Your task to perform on an android device: open chrome privacy settings Image 0: 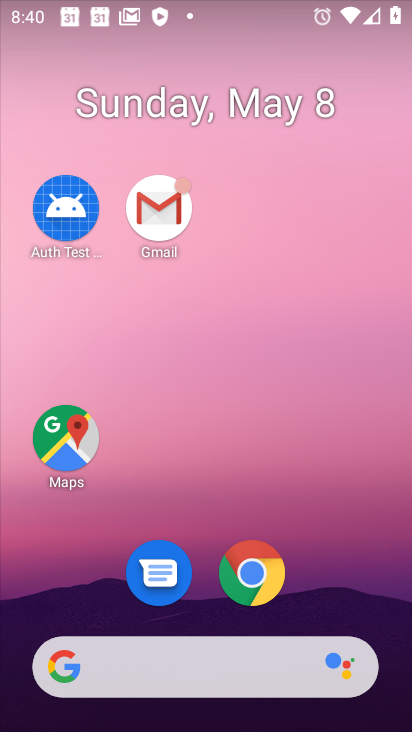
Step 0: drag from (344, 594) to (165, 146)
Your task to perform on an android device: open chrome privacy settings Image 1: 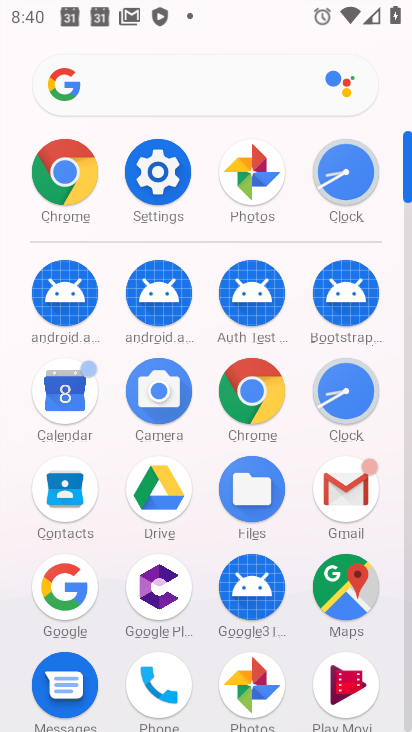
Step 1: click (247, 388)
Your task to perform on an android device: open chrome privacy settings Image 2: 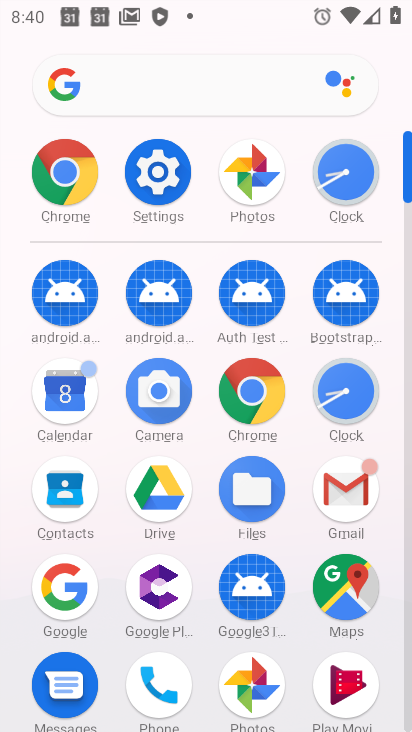
Step 2: click (249, 388)
Your task to perform on an android device: open chrome privacy settings Image 3: 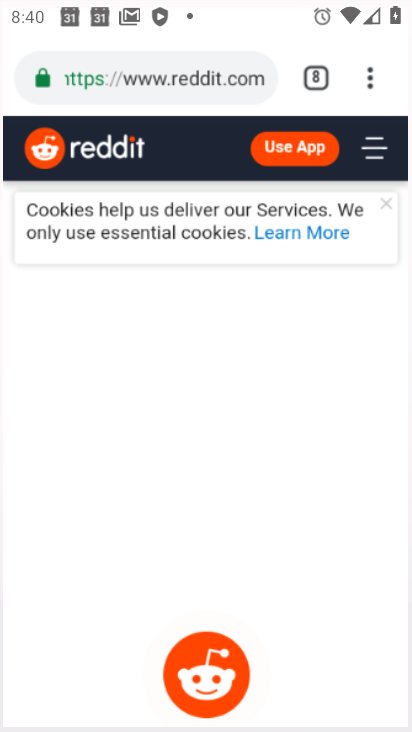
Step 3: click (250, 390)
Your task to perform on an android device: open chrome privacy settings Image 4: 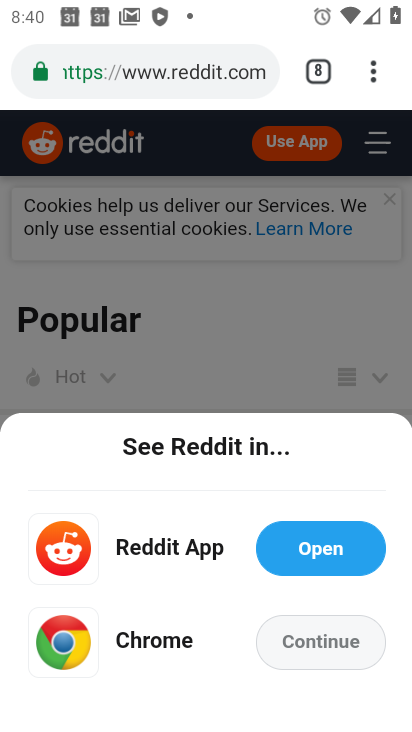
Step 4: click (369, 81)
Your task to perform on an android device: open chrome privacy settings Image 5: 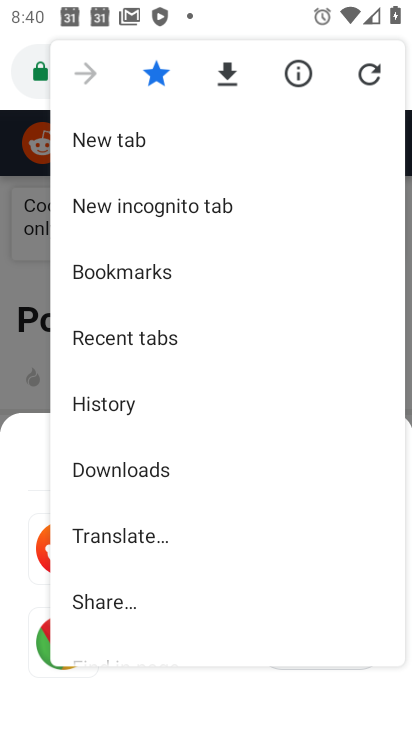
Step 5: drag from (328, 406) to (331, 140)
Your task to perform on an android device: open chrome privacy settings Image 6: 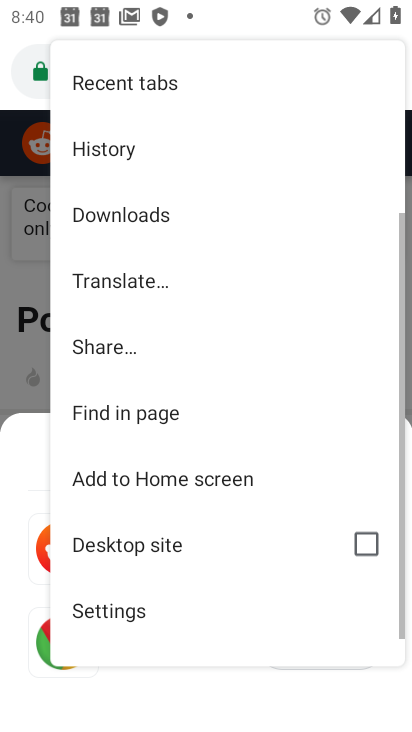
Step 6: drag from (303, 323) to (241, 38)
Your task to perform on an android device: open chrome privacy settings Image 7: 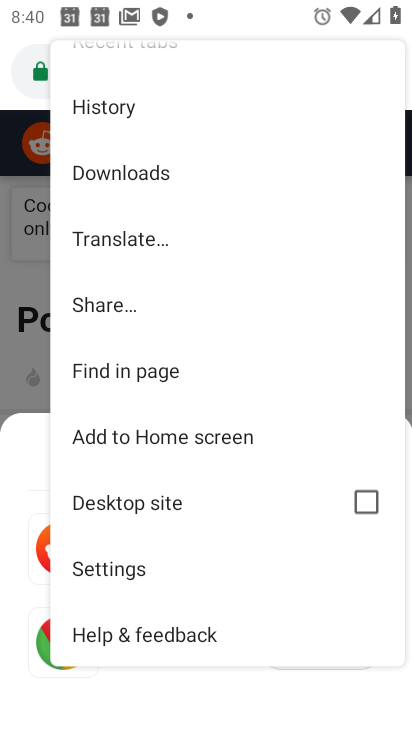
Step 7: click (105, 572)
Your task to perform on an android device: open chrome privacy settings Image 8: 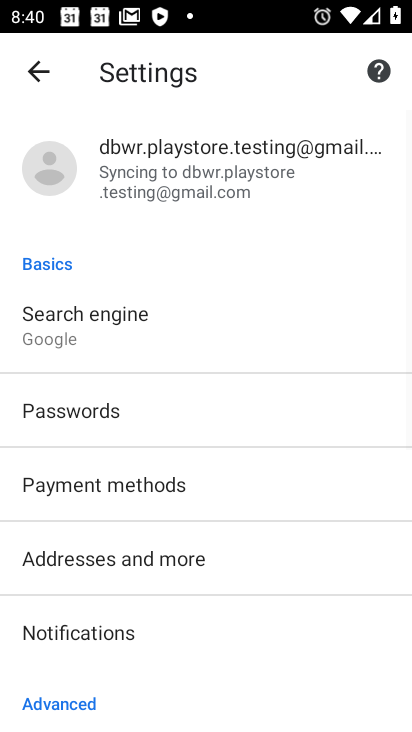
Step 8: drag from (175, 495) to (142, 203)
Your task to perform on an android device: open chrome privacy settings Image 9: 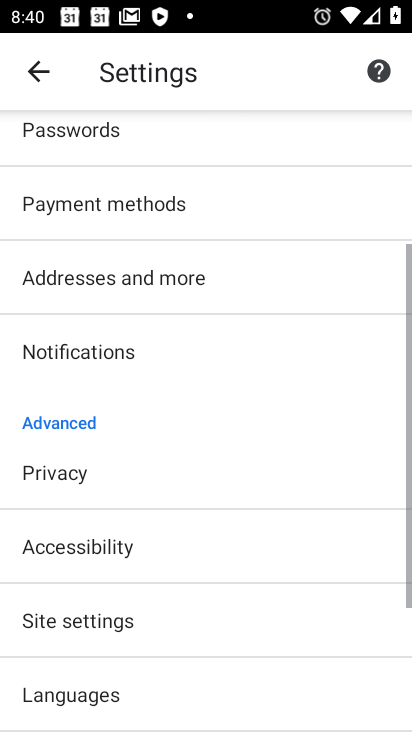
Step 9: drag from (213, 485) to (148, 168)
Your task to perform on an android device: open chrome privacy settings Image 10: 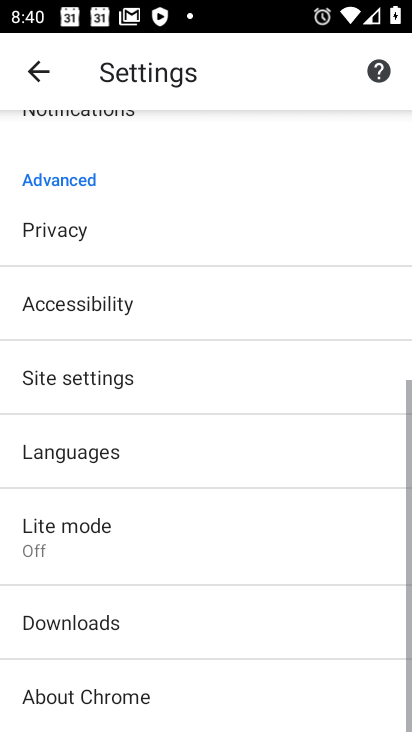
Step 10: drag from (115, 511) to (81, 251)
Your task to perform on an android device: open chrome privacy settings Image 11: 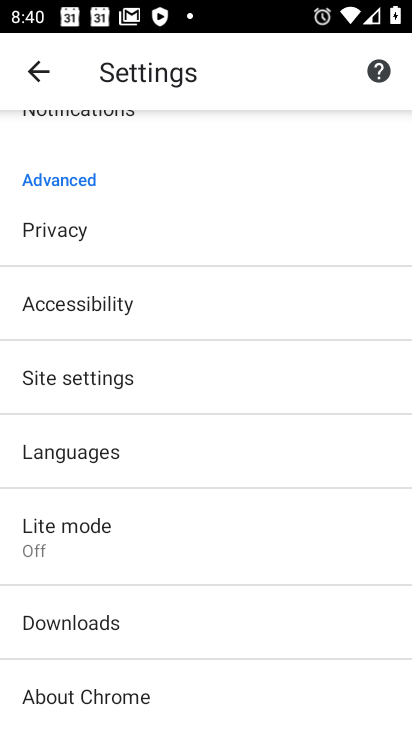
Step 11: click (56, 235)
Your task to perform on an android device: open chrome privacy settings Image 12: 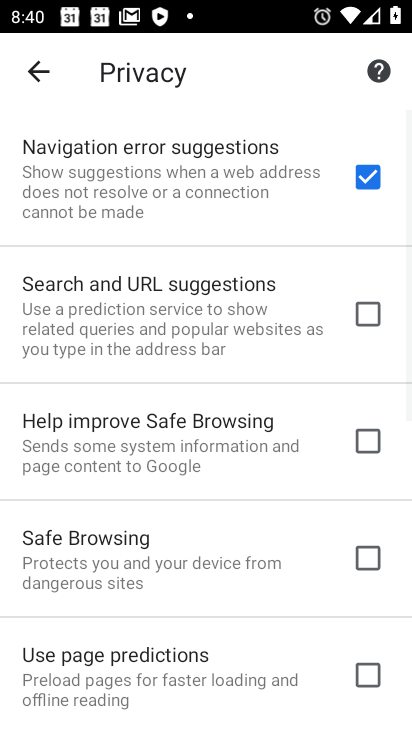
Step 12: task complete